Your task to perform on an android device: Add bose soundsport free to the cart on target, then select checkout. Image 0: 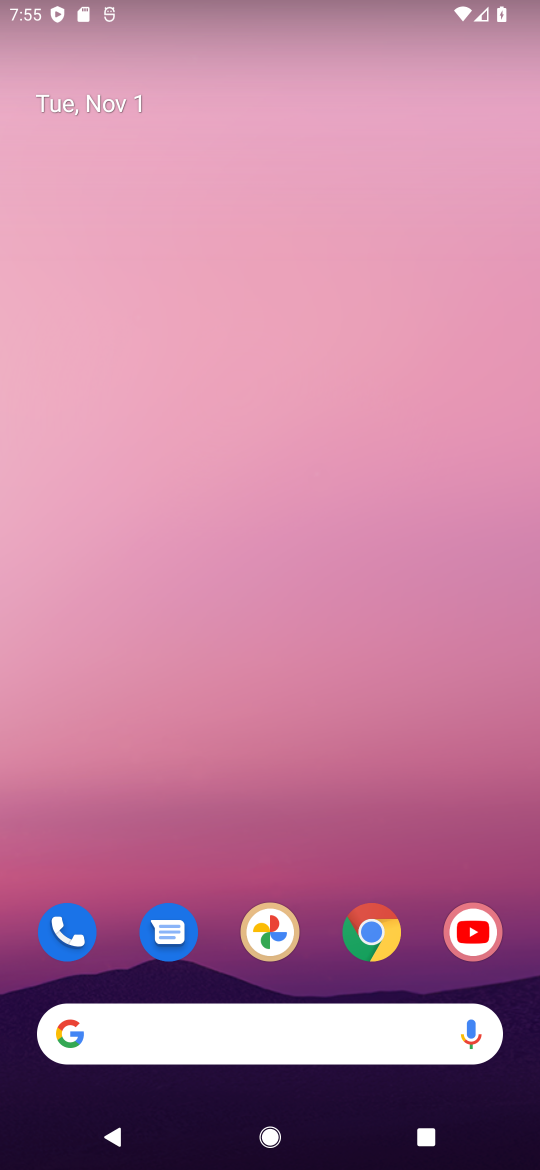
Step 0: click (368, 927)
Your task to perform on an android device: Add bose soundsport free to the cart on target, then select checkout. Image 1: 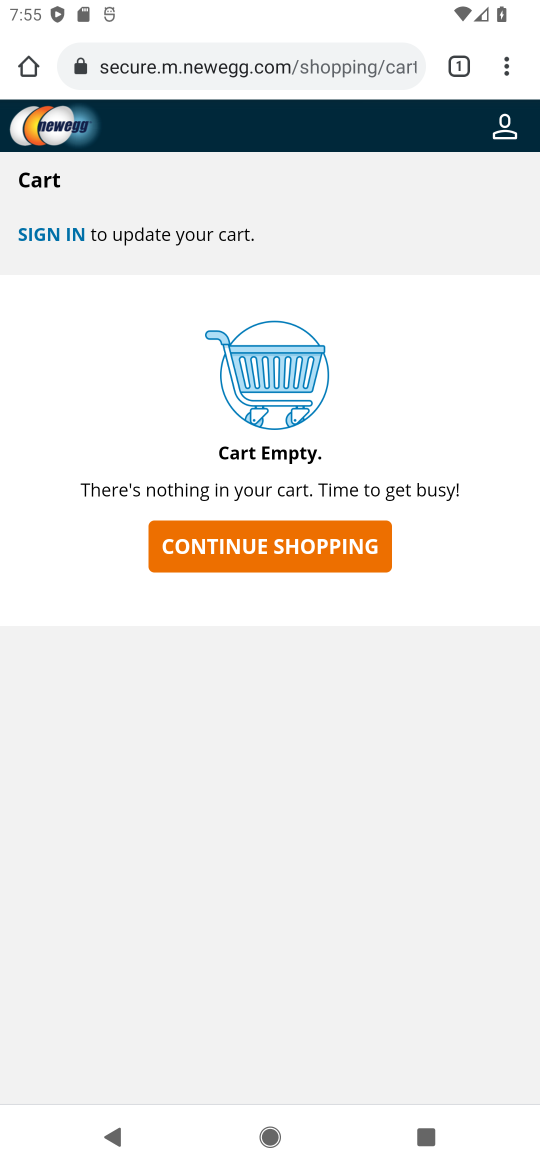
Step 1: click (238, 71)
Your task to perform on an android device: Add bose soundsport free to the cart on target, then select checkout. Image 2: 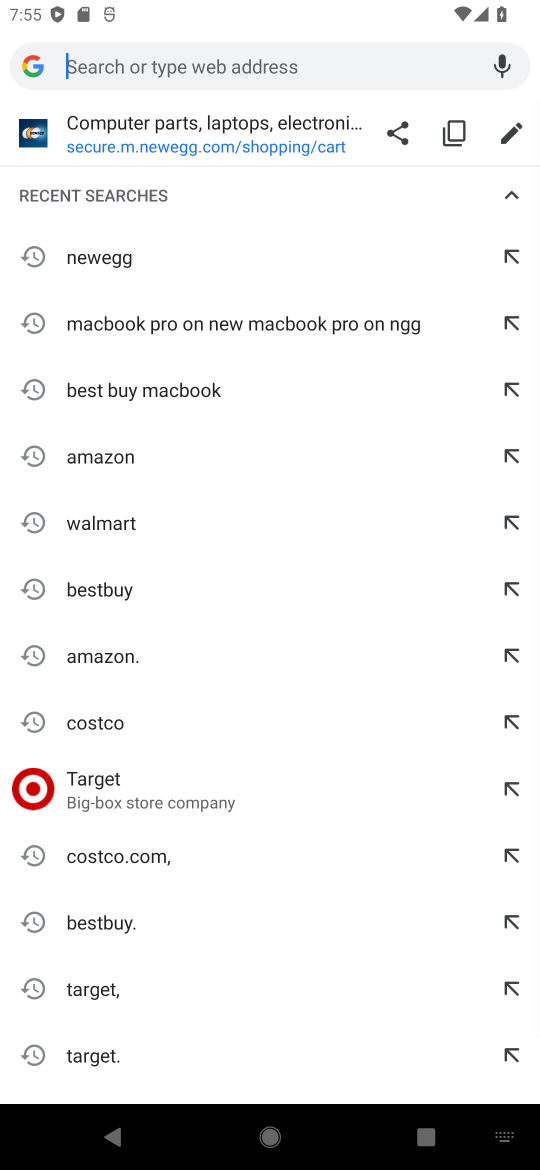
Step 2: click (83, 784)
Your task to perform on an android device: Add bose soundsport free to the cart on target, then select checkout. Image 3: 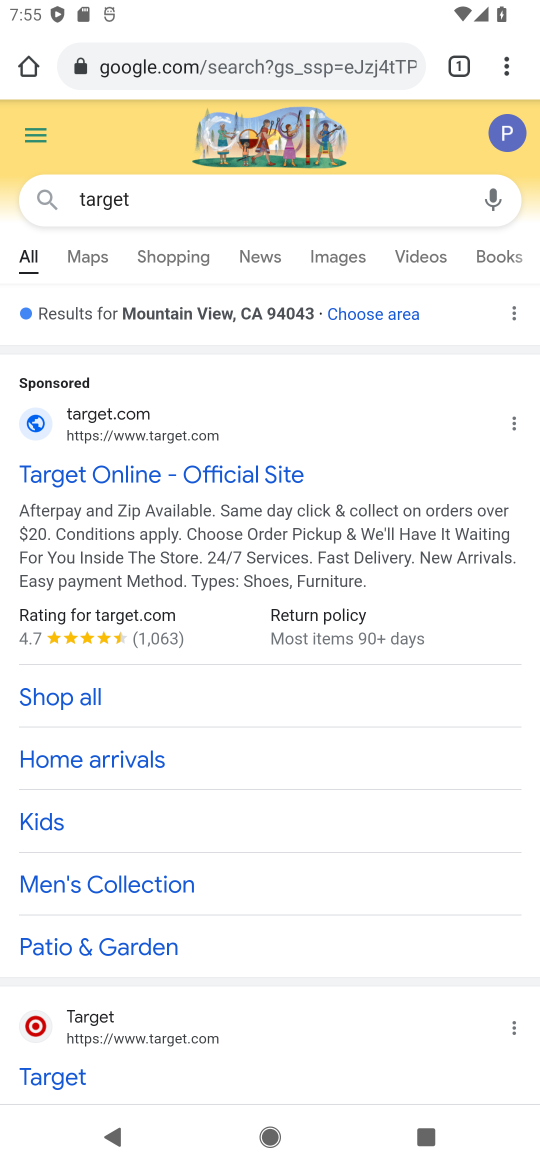
Step 3: click (120, 441)
Your task to perform on an android device: Add bose soundsport free to the cart on target, then select checkout. Image 4: 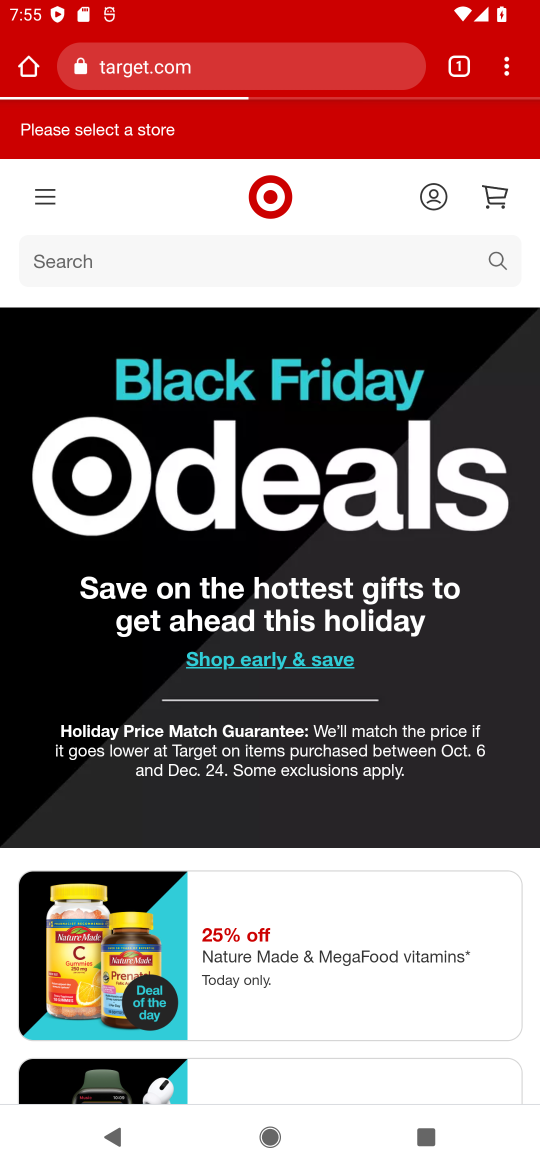
Step 4: click (500, 265)
Your task to perform on an android device: Add bose soundsport free to the cart on target, then select checkout. Image 5: 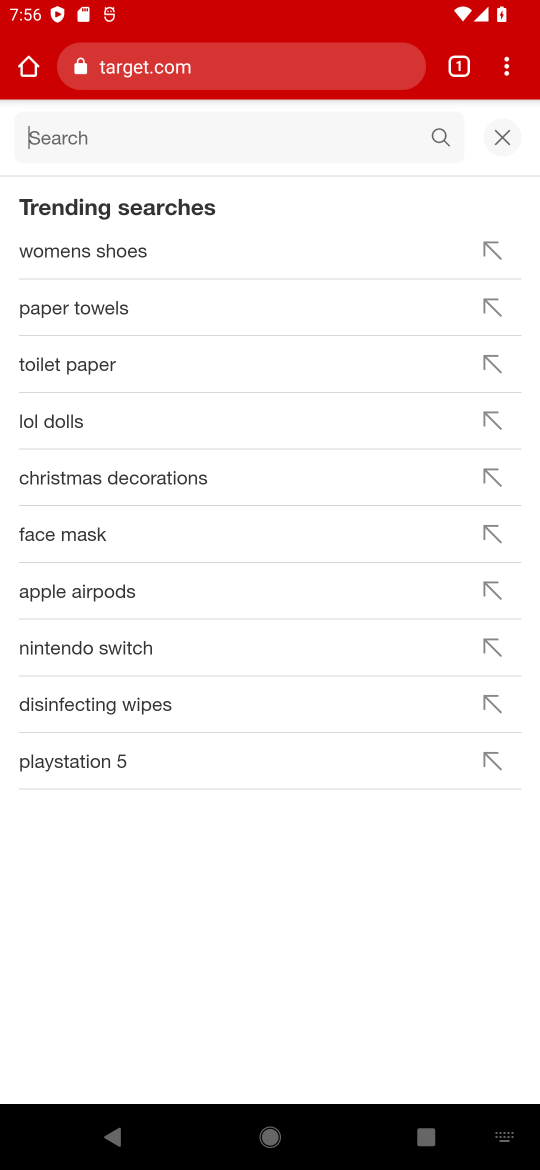
Step 5: click (187, 127)
Your task to perform on an android device: Add bose soundsport free to the cart on target, then select checkout. Image 6: 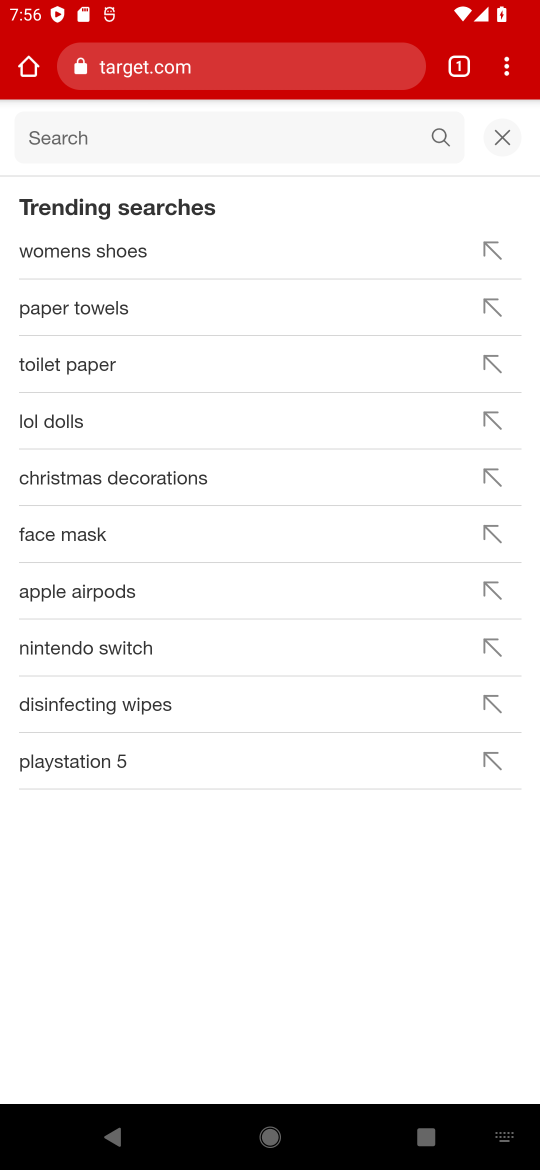
Step 6: type "bose soundsport free"
Your task to perform on an android device: Add bose soundsport free to the cart on target, then select checkout. Image 7: 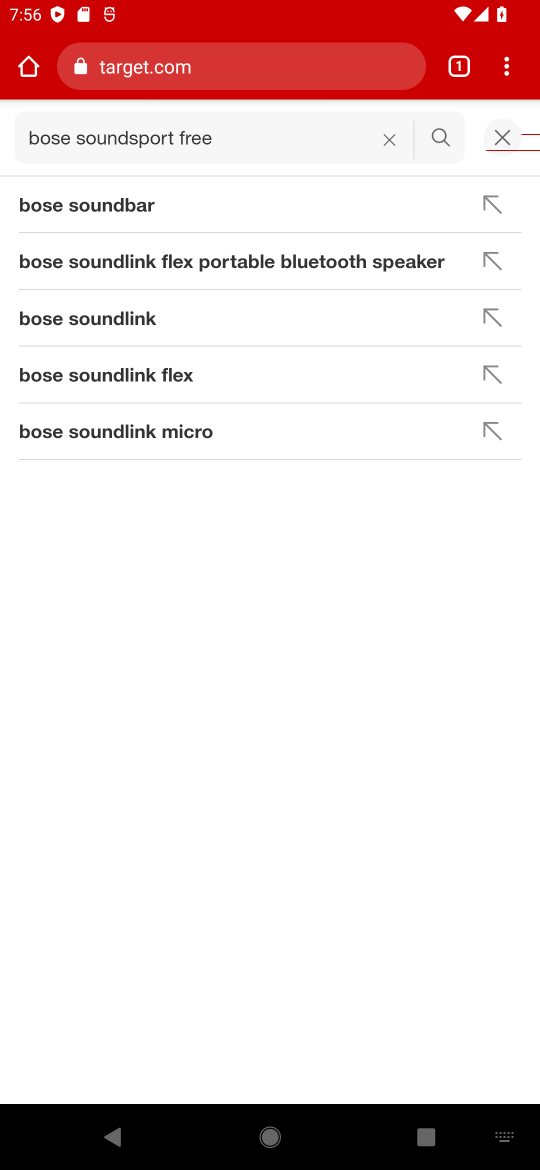
Step 7: click (435, 136)
Your task to perform on an android device: Add bose soundsport free to the cart on target, then select checkout. Image 8: 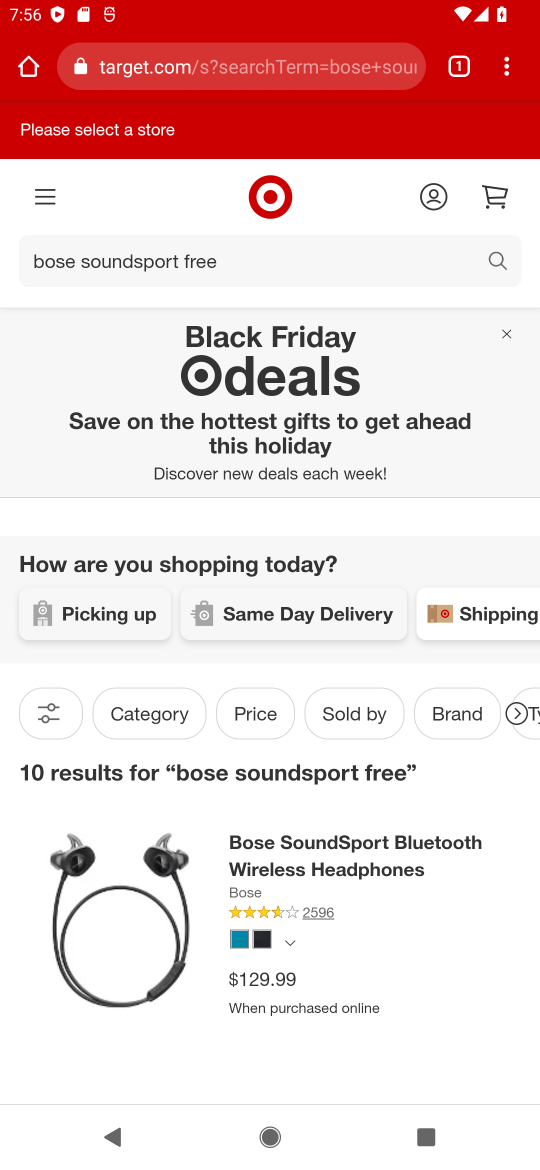
Step 8: click (310, 895)
Your task to perform on an android device: Add bose soundsport free to the cart on target, then select checkout. Image 9: 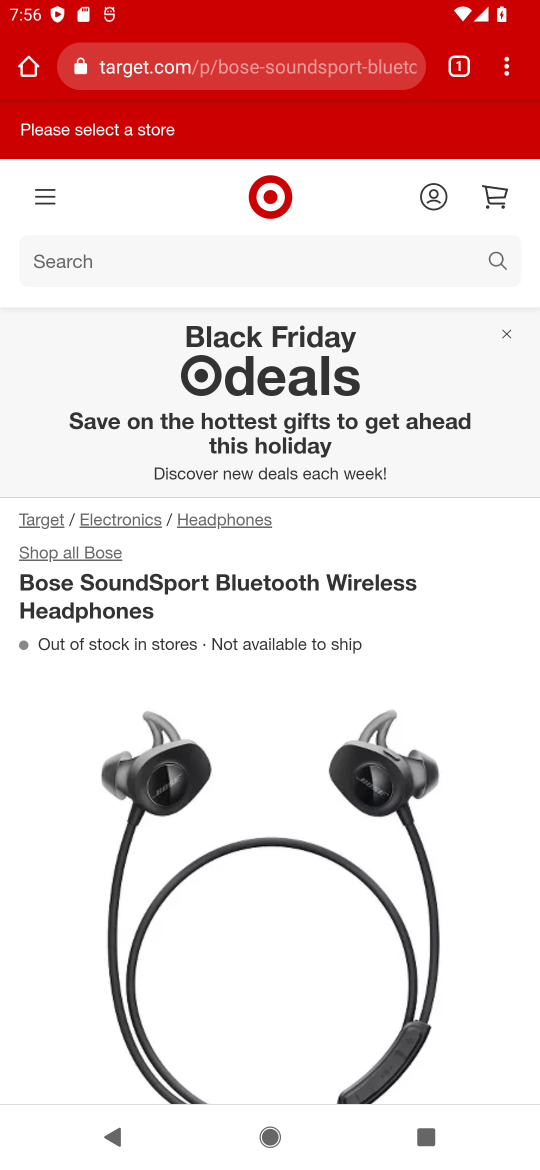
Step 9: drag from (310, 895) to (331, 418)
Your task to perform on an android device: Add bose soundsport free to the cart on target, then select checkout. Image 10: 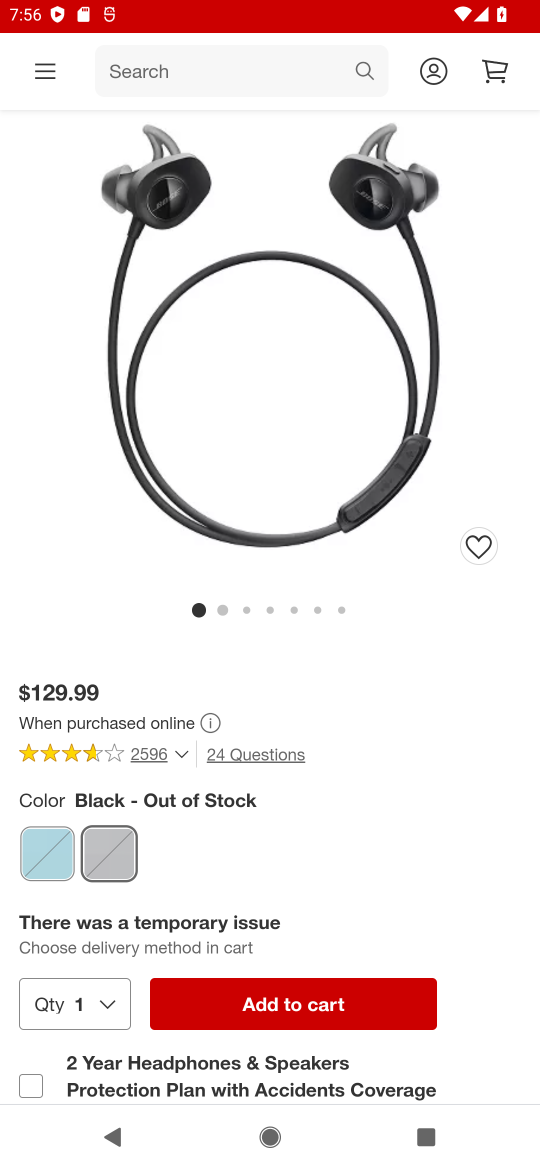
Step 10: click (264, 1007)
Your task to perform on an android device: Add bose soundsport free to the cart on target, then select checkout. Image 11: 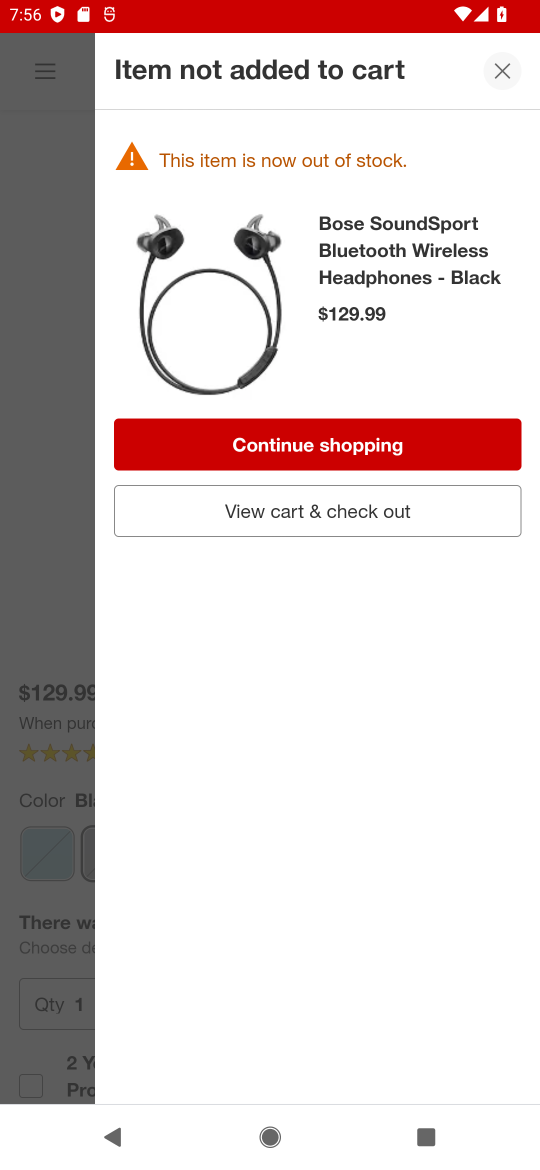
Step 11: click (509, 70)
Your task to perform on an android device: Add bose soundsport free to the cart on target, then select checkout. Image 12: 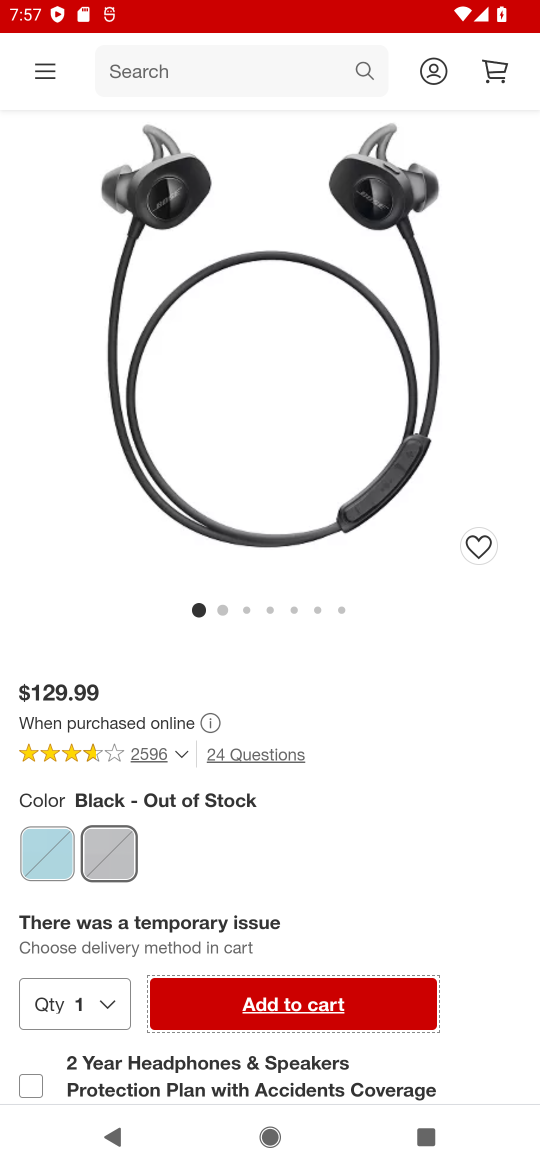
Step 12: press back button
Your task to perform on an android device: Add bose soundsport free to the cart on target, then select checkout. Image 13: 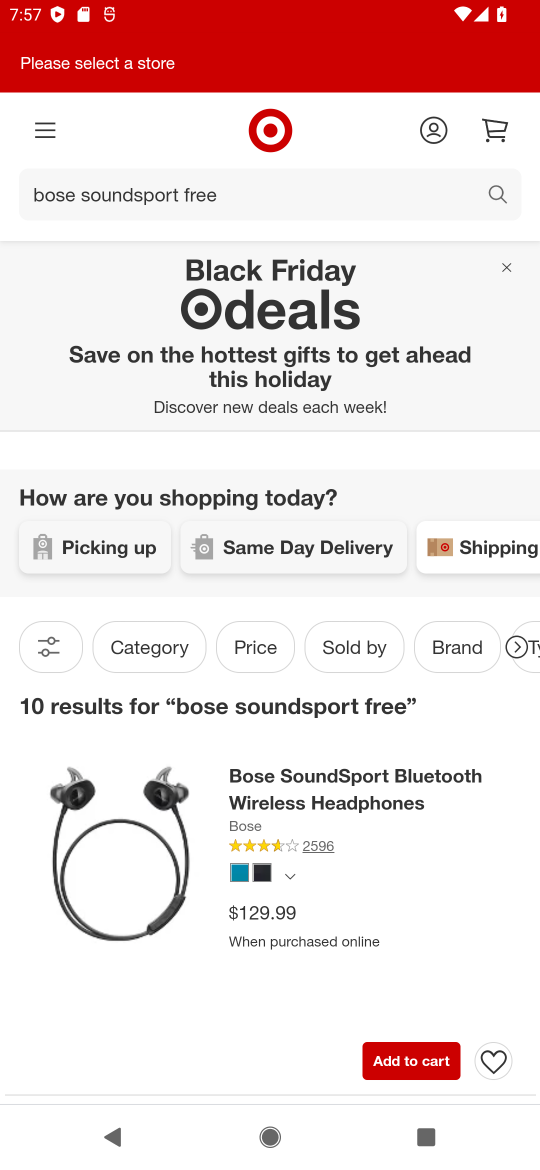
Step 13: drag from (240, 794) to (267, 288)
Your task to perform on an android device: Add bose soundsport free to the cart on target, then select checkout. Image 14: 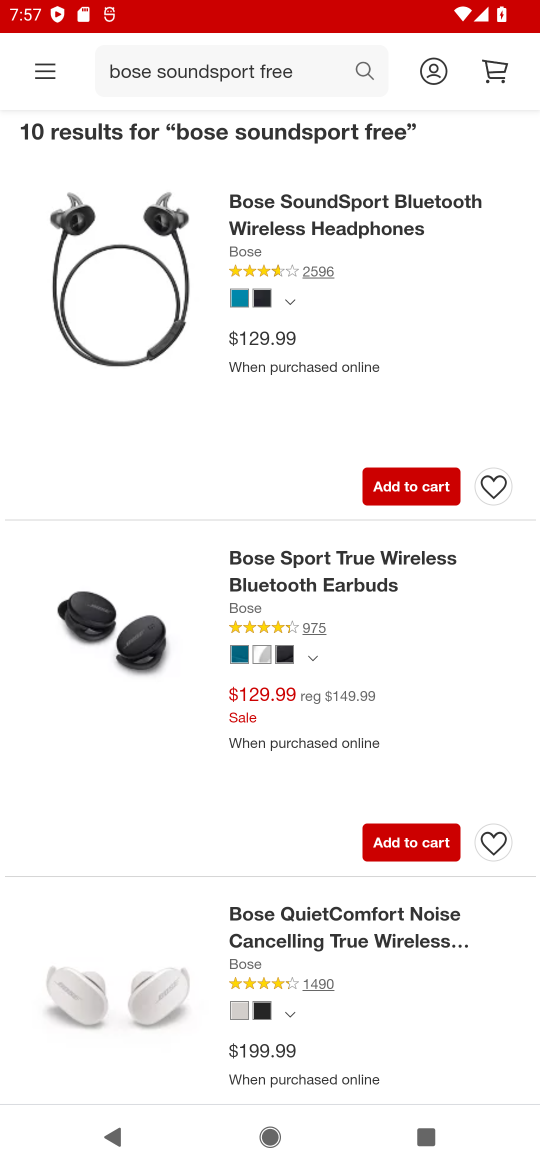
Step 14: click (261, 637)
Your task to perform on an android device: Add bose soundsport free to the cart on target, then select checkout. Image 15: 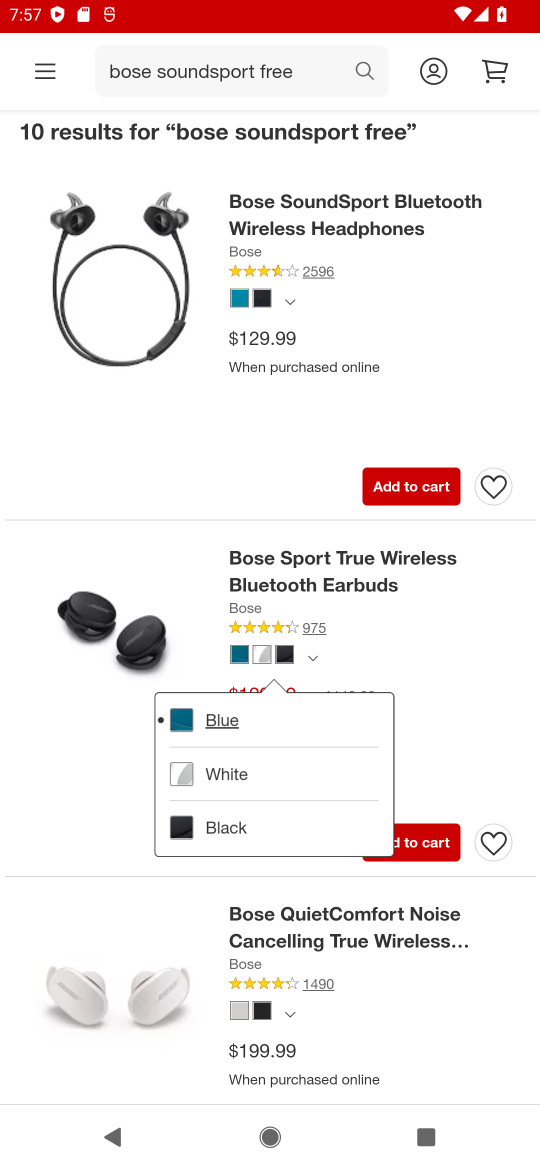
Step 15: click (187, 609)
Your task to perform on an android device: Add bose soundsport free to the cart on target, then select checkout. Image 16: 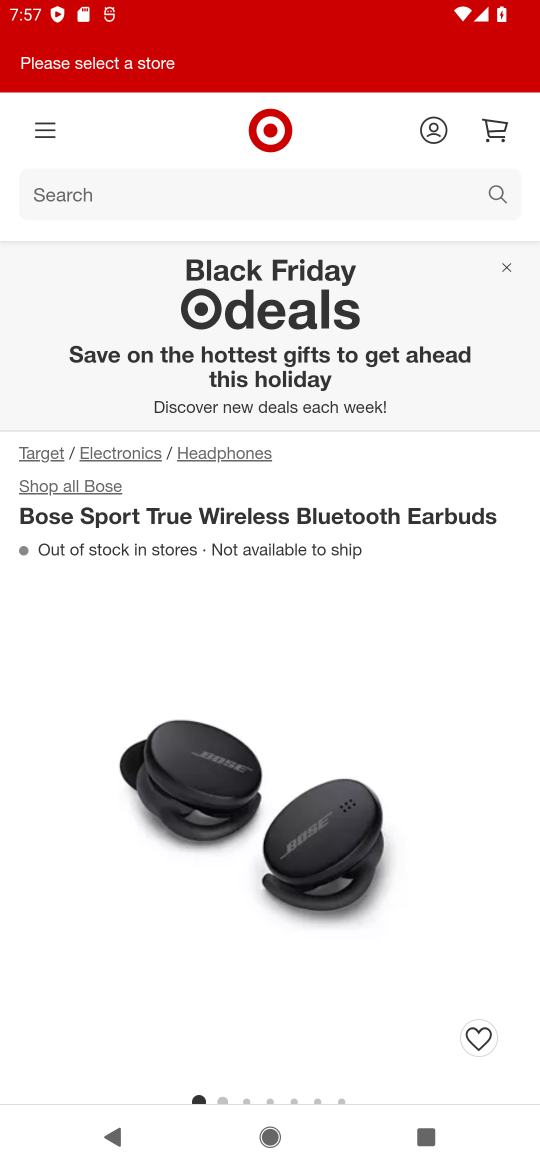
Step 16: drag from (404, 775) to (403, 281)
Your task to perform on an android device: Add bose soundsport free to the cart on target, then select checkout. Image 17: 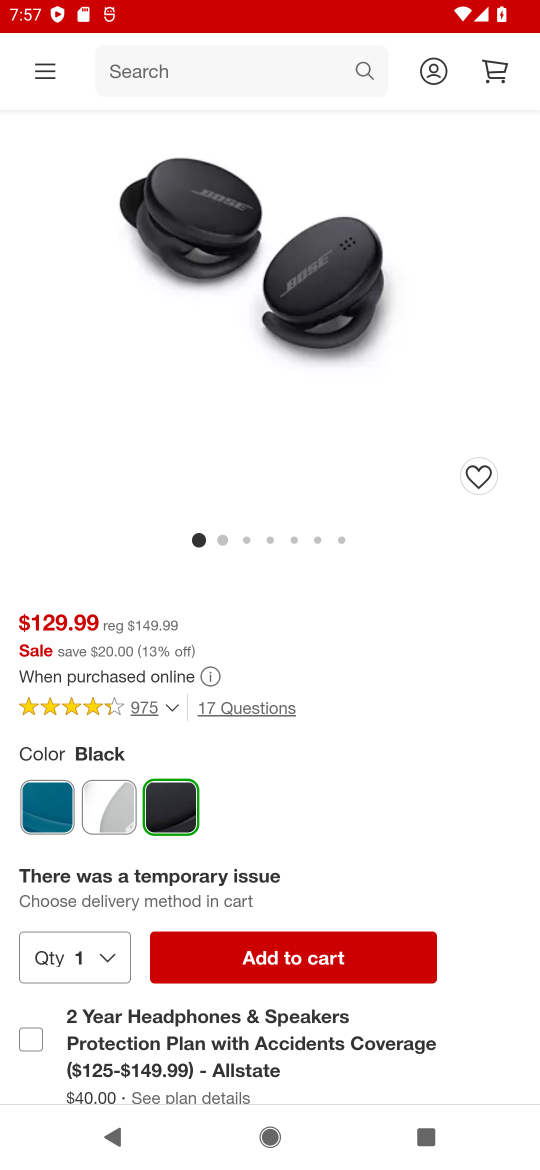
Step 17: click (311, 944)
Your task to perform on an android device: Add bose soundsport free to the cart on target, then select checkout. Image 18: 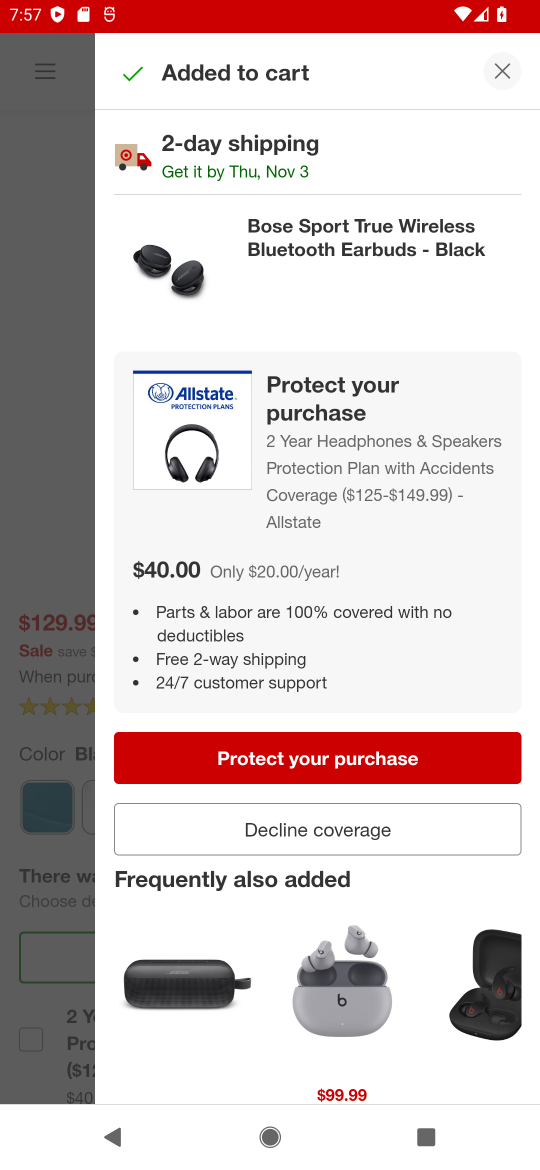
Step 18: click (508, 74)
Your task to perform on an android device: Add bose soundsport free to the cart on target, then select checkout. Image 19: 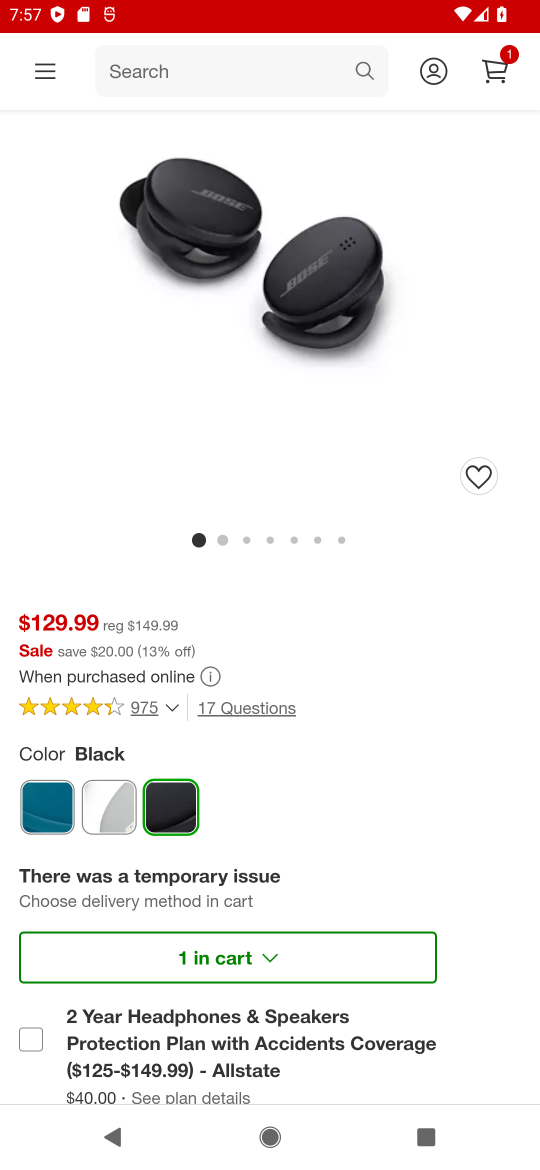
Step 19: drag from (322, 788) to (328, 322)
Your task to perform on an android device: Add bose soundsport free to the cart on target, then select checkout. Image 20: 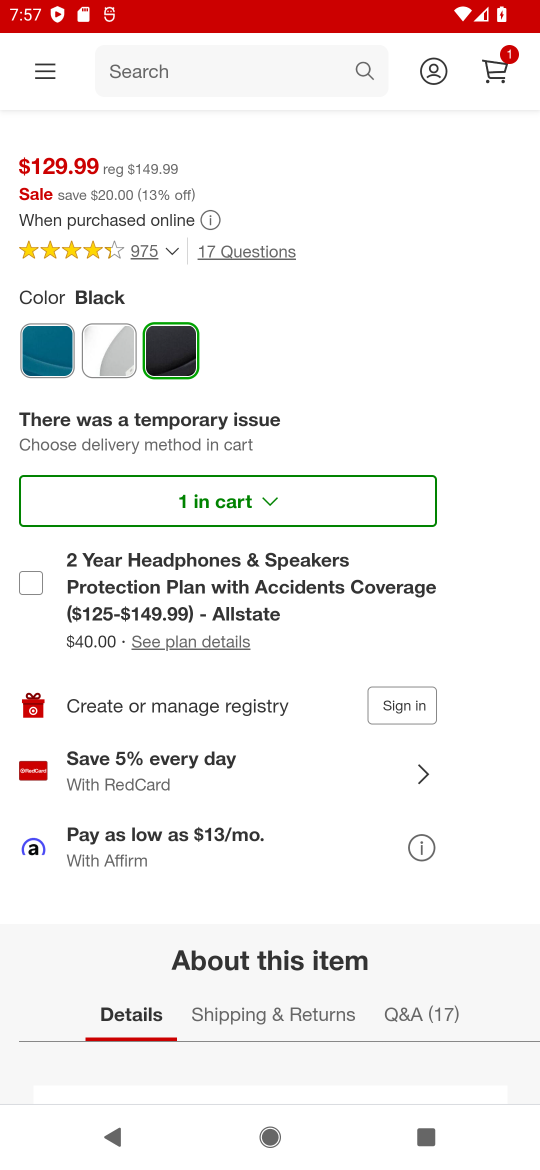
Step 20: drag from (278, 575) to (295, 972)
Your task to perform on an android device: Add bose soundsport free to the cart on target, then select checkout. Image 21: 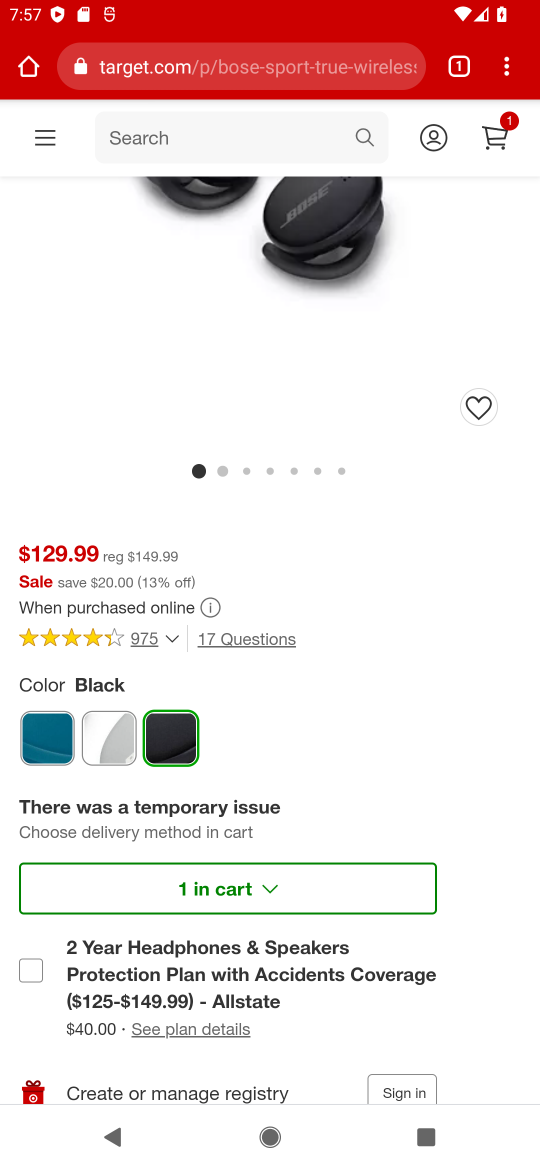
Step 21: click (497, 128)
Your task to perform on an android device: Add bose soundsport free to the cart on target, then select checkout. Image 22: 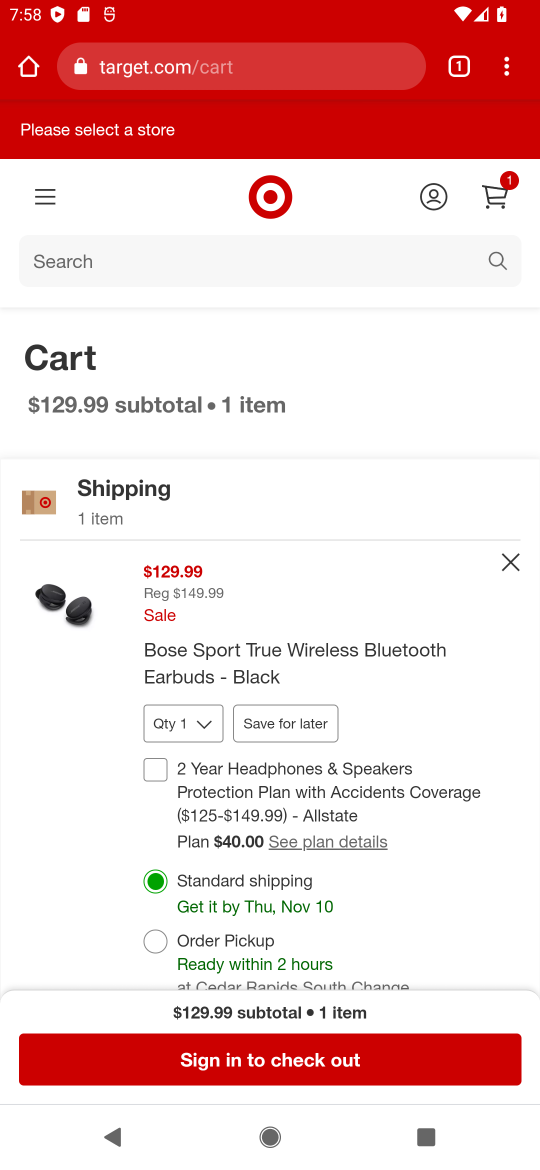
Step 22: click (291, 1050)
Your task to perform on an android device: Add bose soundsport free to the cart on target, then select checkout. Image 23: 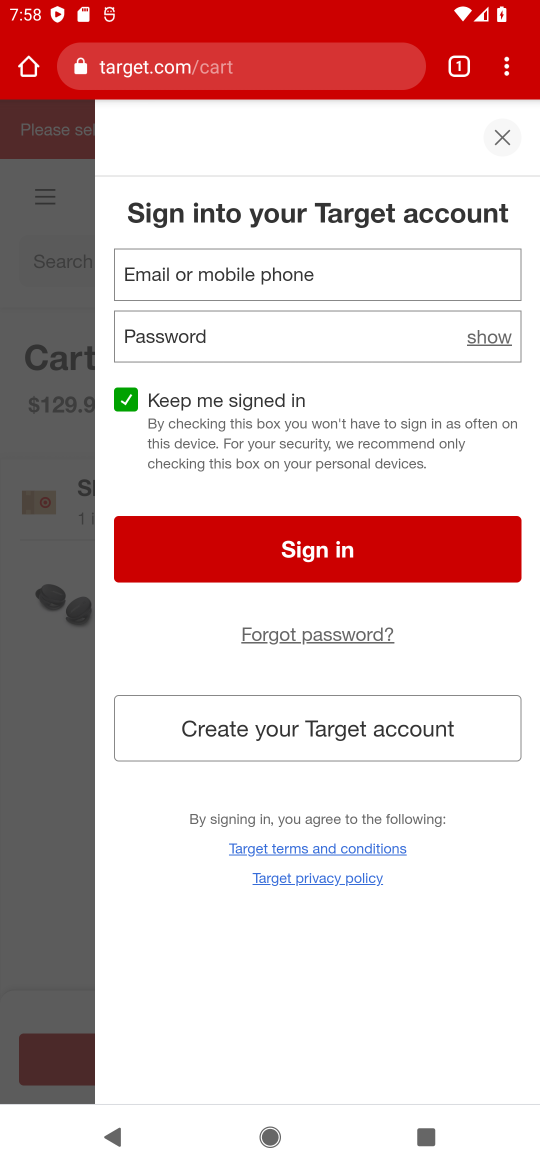
Step 23: task complete